Your task to perform on an android device: Go to Yahoo.com Image 0: 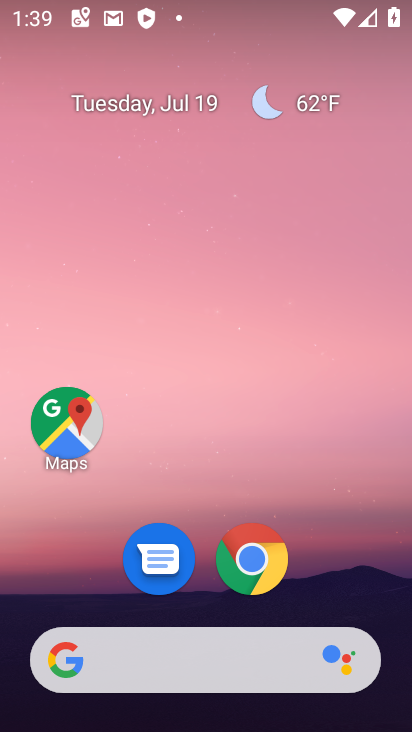
Step 0: drag from (262, 557) to (294, 109)
Your task to perform on an android device: Go to Yahoo.com Image 1: 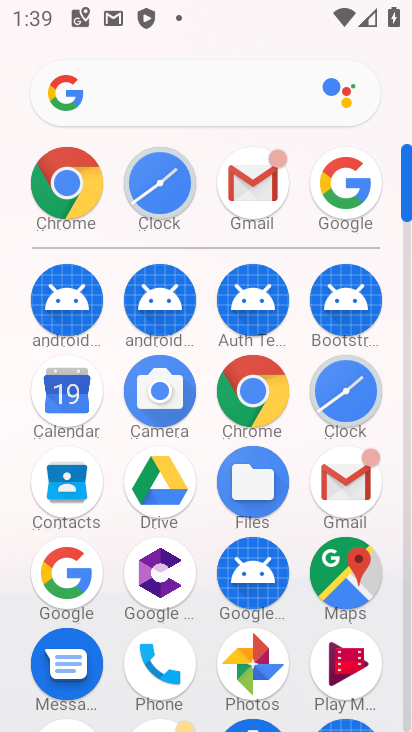
Step 1: click (261, 387)
Your task to perform on an android device: Go to Yahoo.com Image 2: 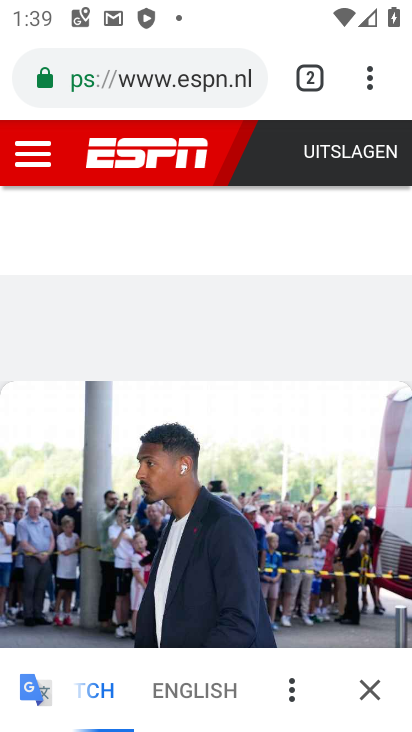
Step 2: click (222, 74)
Your task to perform on an android device: Go to Yahoo.com Image 3: 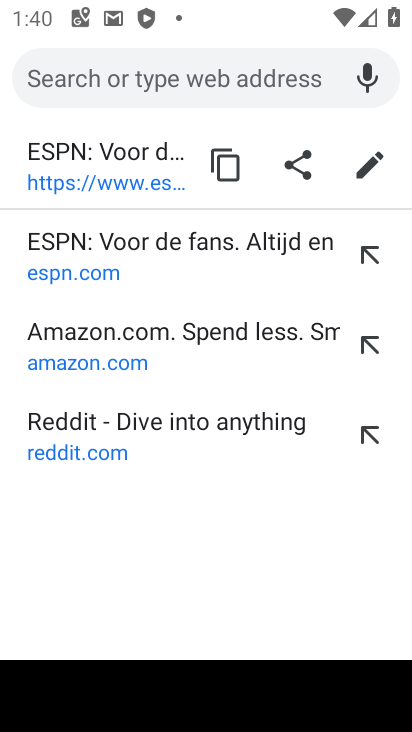
Step 3: type "yahoo"
Your task to perform on an android device: Go to Yahoo.com Image 4: 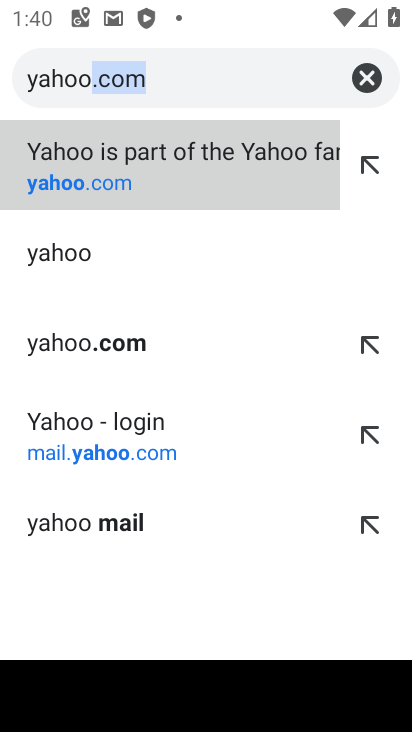
Step 4: click (112, 167)
Your task to perform on an android device: Go to Yahoo.com Image 5: 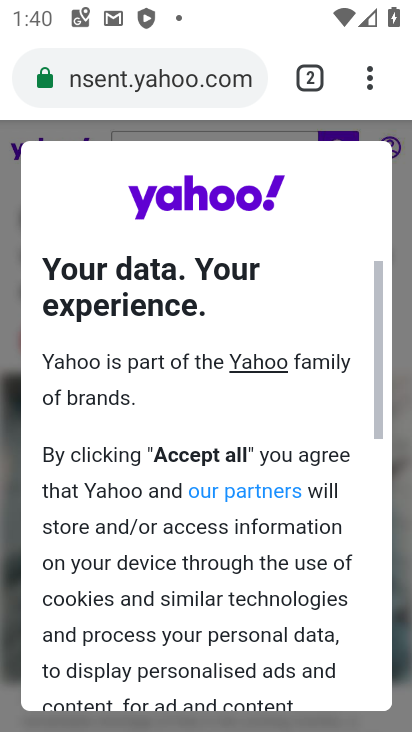
Step 5: task complete